Your task to perform on an android device: install app "TextNow: Call + Text Unlimited" Image 0: 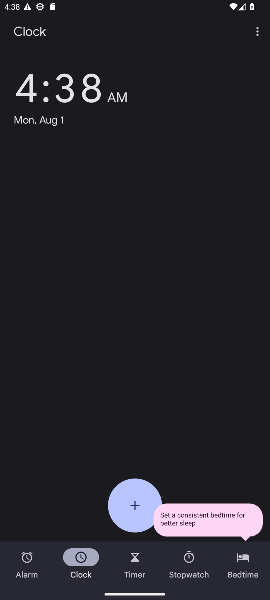
Step 0: press home button
Your task to perform on an android device: install app "TextNow: Call + Text Unlimited" Image 1: 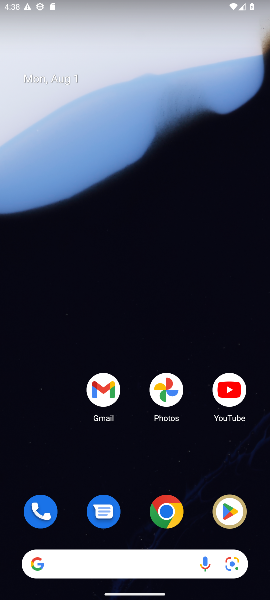
Step 1: drag from (122, 469) to (133, 243)
Your task to perform on an android device: install app "TextNow: Call + Text Unlimited" Image 2: 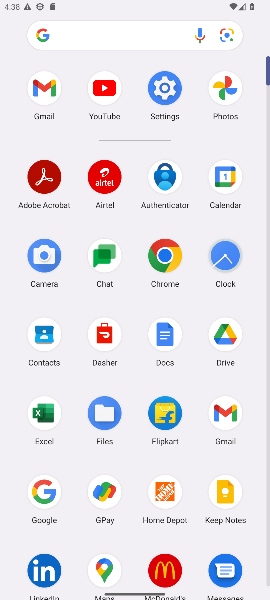
Step 2: drag from (193, 519) to (204, 293)
Your task to perform on an android device: install app "TextNow: Call + Text Unlimited" Image 3: 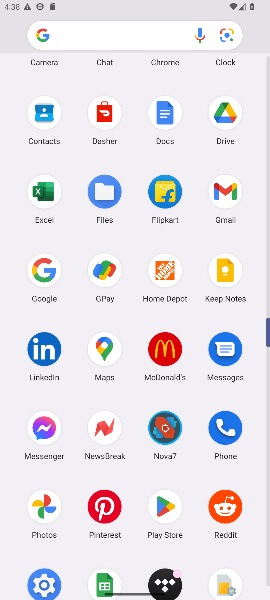
Step 3: drag from (184, 484) to (222, 210)
Your task to perform on an android device: install app "TextNow: Call + Text Unlimited" Image 4: 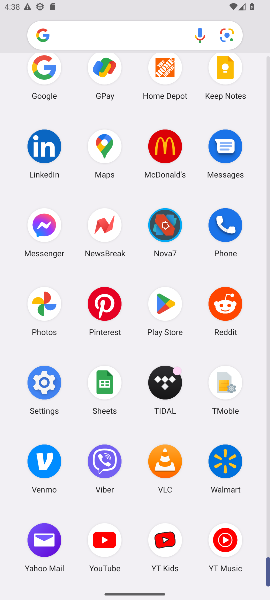
Step 4: drag from (188, 482) to (246, 104)
Your task to perform on an android device: install app "TextNow: Call + Text Unlimited" Image 5: 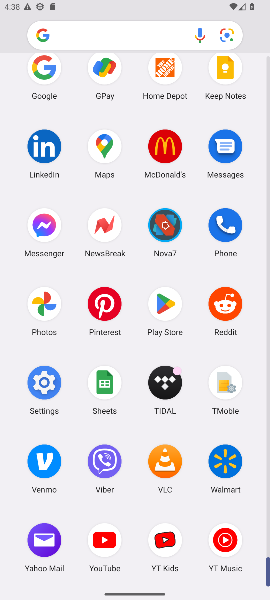
Step 5: click (175, 466)
Your task to perform on an android device: install app "TextNow: Call + Text Unlimited" Image 6: 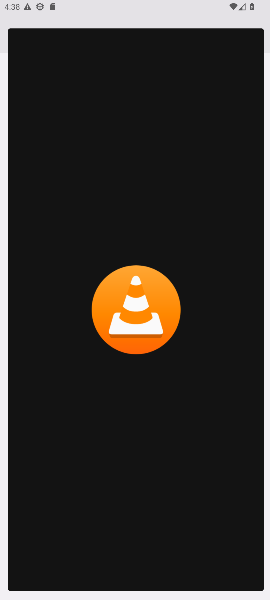
Step 6: drag from (180, 284) to (171, 324)
Your task to perform on an android device: install app "TextNow: Call + Text Unlimited" Image 7: 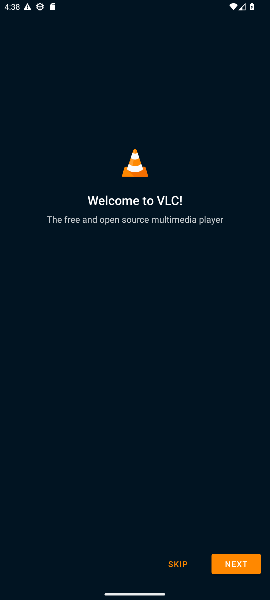
Step 7: press back button
Your task to perform on an android device: install app "TextNow: Call + Text Unlimited" Image 8: 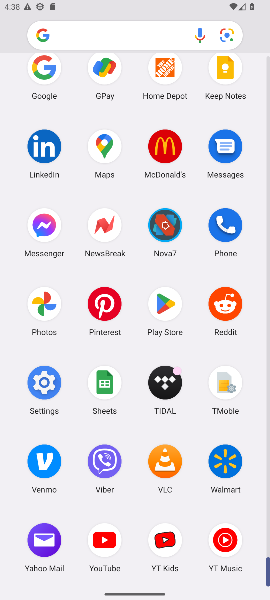
Step 8: click (171, 306)
Your task to perform on an android device: install app "TextNow: Call + Text Unlimited" Image 9: 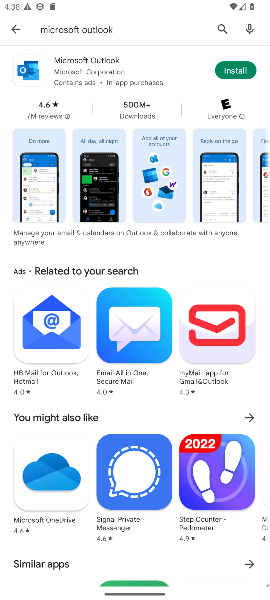
Step 9: click (15, 32)
Your task to perform on an android device: install app "TextNow: Call + Text Unlimited" Image 10: 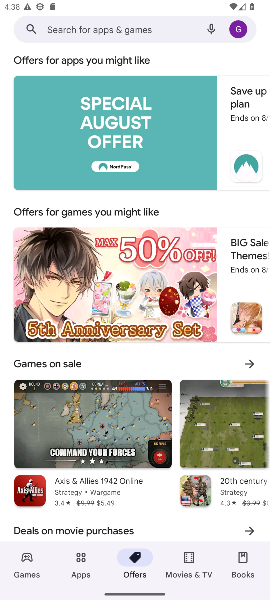
Step 10: click (89, 32)
Your task to perform on an android device: install app "TextNow: Call + Text Unlimited" Image 11: 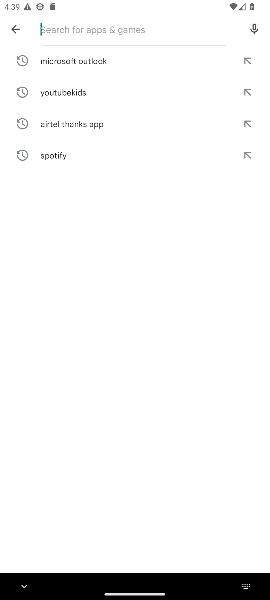
Step 11: click (141, 31)
Your task to perform on an android device: install app "TextNow: Call + Text Unlimited" Image 12: 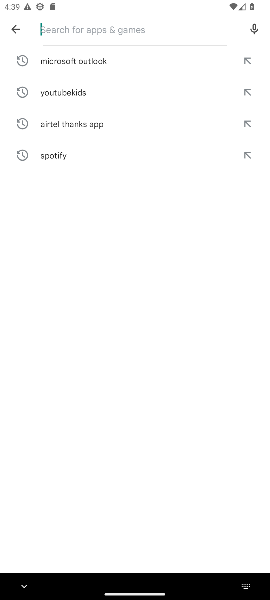
Step 12: type "TextNow: Call + Text Unlimited"
Your task to perform on an android device: install app "TextNow: Call + Text Unlimited" Image 13: 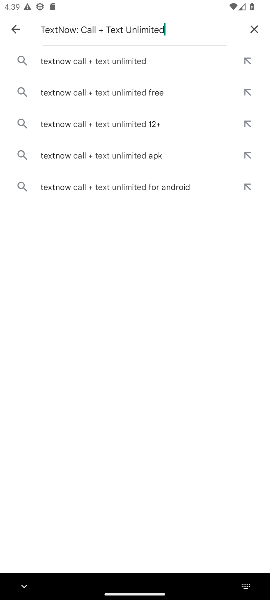
Step 13: click (103, 54)
Your task to perform on an android device: install app "TextNow: Call + Text Unlimited" Image 14: 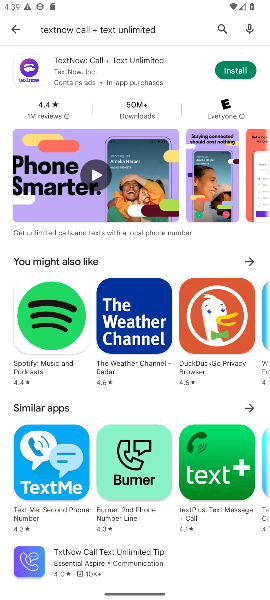
Step 14: click (238, 72)
Your task to perform on an android device: install app "TextNow: Call + Text Unlimited" Image 15: 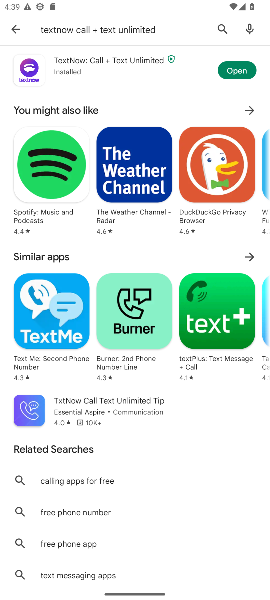
Step 15: click (245, 68)
Your task to perform on an android device: install app "TextNow: Call + Text Unlimited" Image 16: 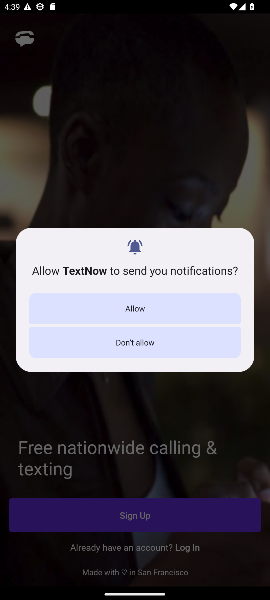
Step 16: task complete